Your task to perform on an android device: Open Chrome and go to settings Image 0: 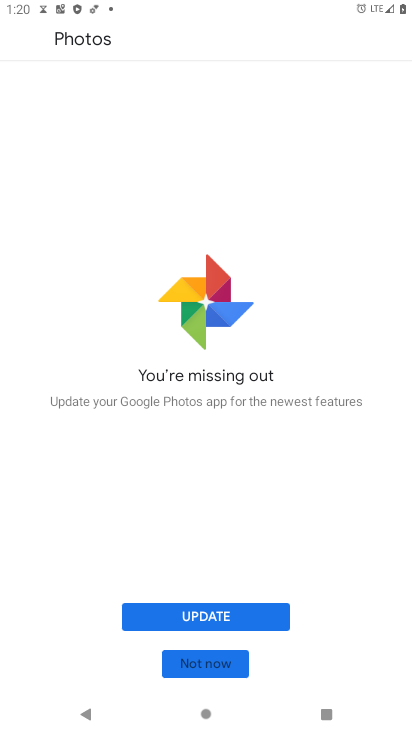
Step 0: press home button
Your task to perform on an android device: Open Chrome and go to settings Image 1: 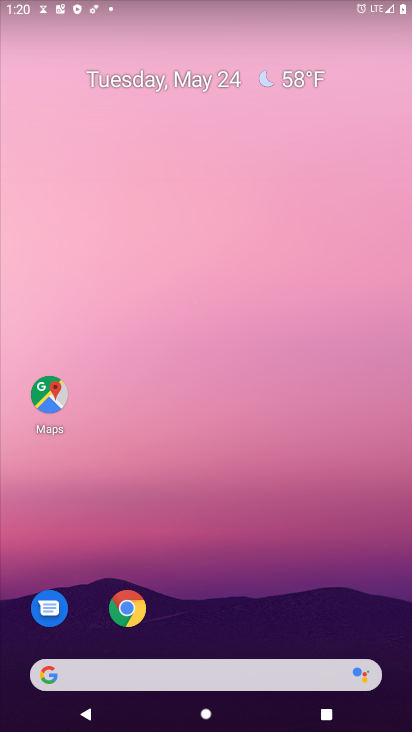
Step 1: drag from (216, 689) to (173, 16)
Your task to perform on an android device: Open Chrome and go to settings Image 2: 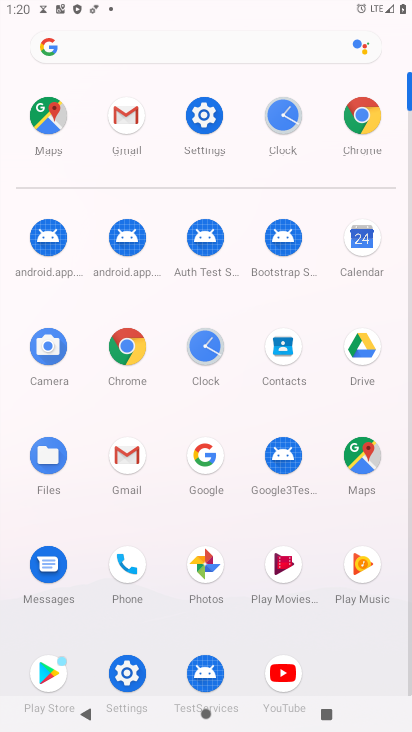
Step 2: click (367, 109)
Your task to perform on an android device: Open Chrome and go to settings Image 3: 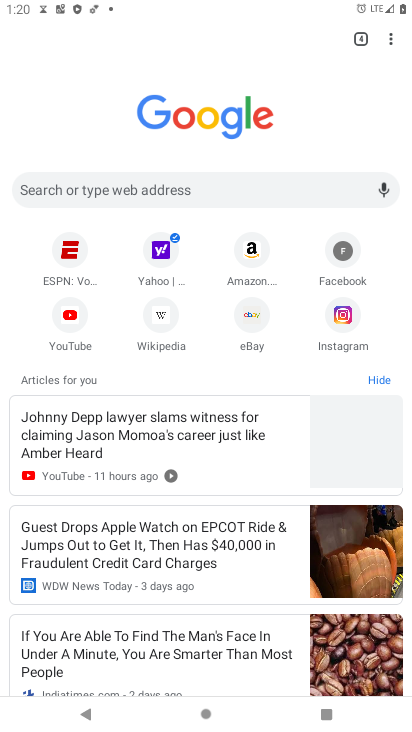
Step 3: click (386, 53)
Your task to perform on an android device: Open Chrome and go to settings Image 4: 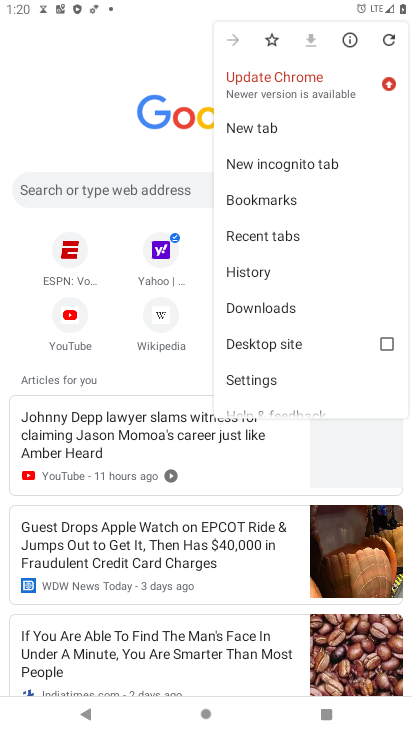
Step 4: click (247, 378)
Your task to perform on an android device: Open Chrome and go to settings Image 5: 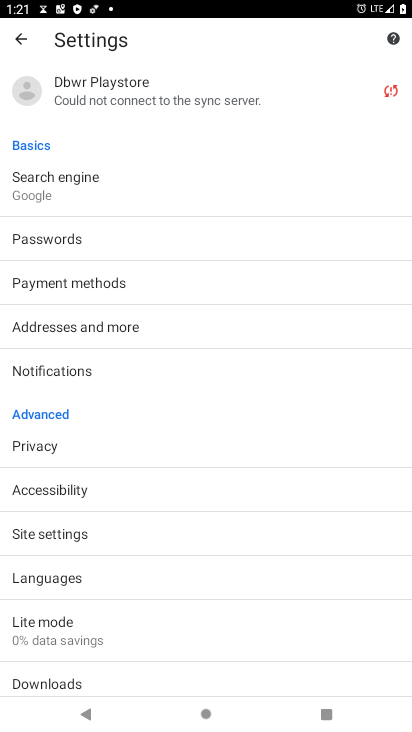
Step 5: task complete